Your task to perform on an android device: Open CNN.com Image 0: 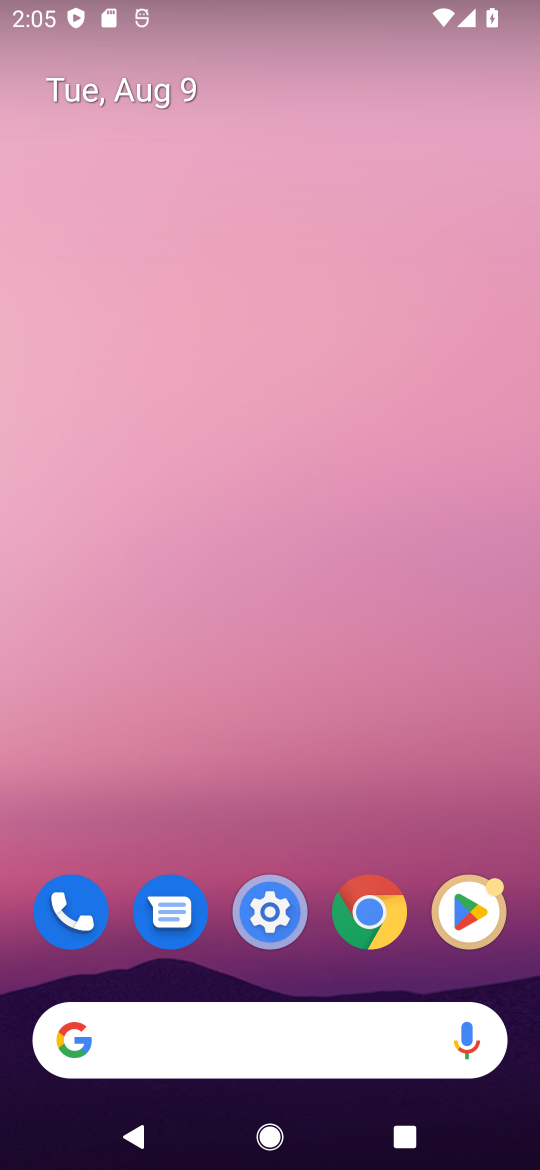
Step 0: click (368, 906)
Your task to perform on an android device: Open CNN.com Image 1: 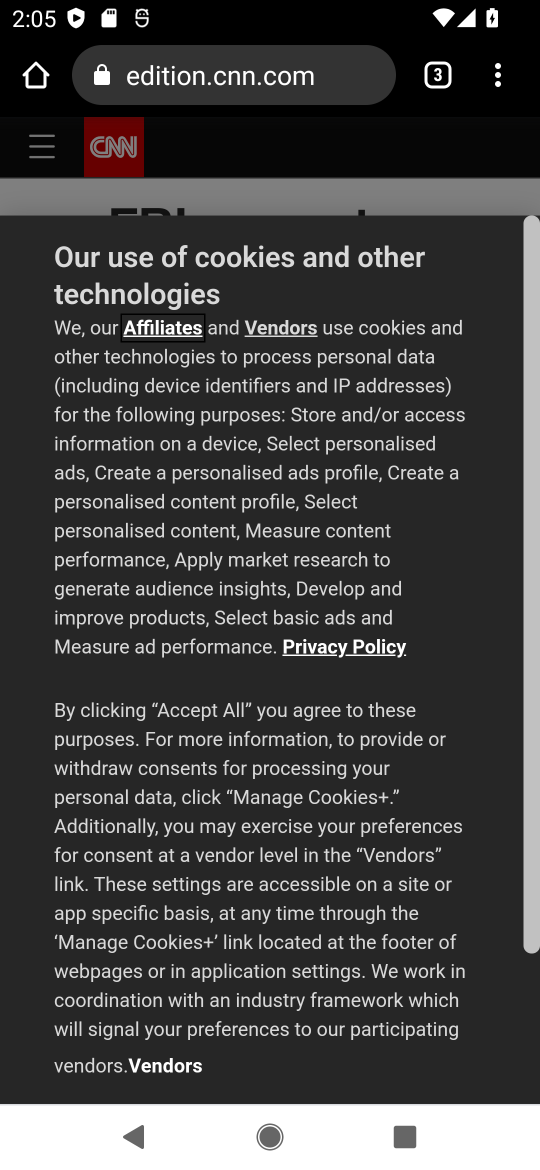
Step 1: task complete